Your task to perform on an android device: Search for Italian restaurants on Maps Image 0: 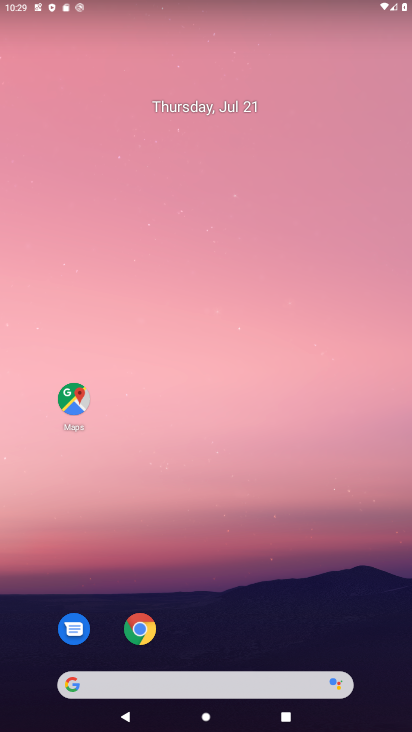
Step 0: click (81, 405)
Your task to perform on an android device: Search for Italian restaurants on Maps Image 1: 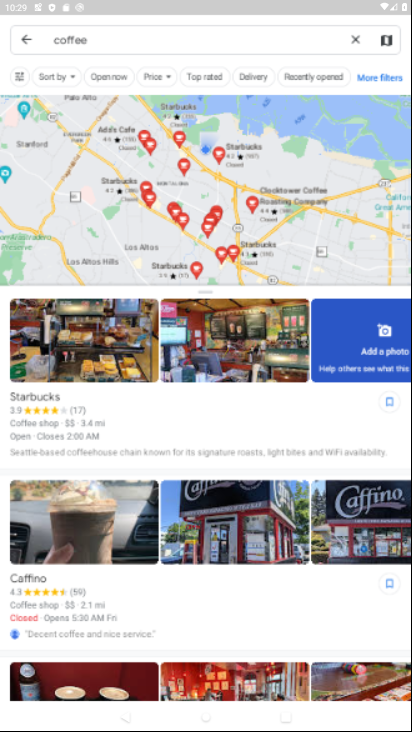
Step 1: click (67, 390)
Your task to perform on an android device: Search for Italian restaurants on Maps Image 2: 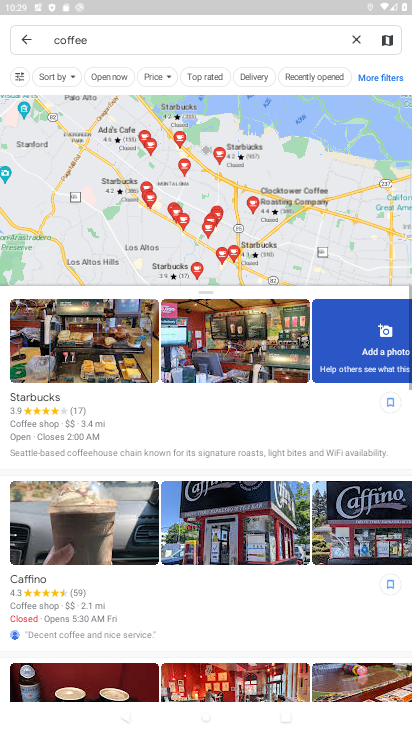
Step 2: click (359, 41)
Your task to perform on an android device: Search for Italian restaurants on Maps Image 3: 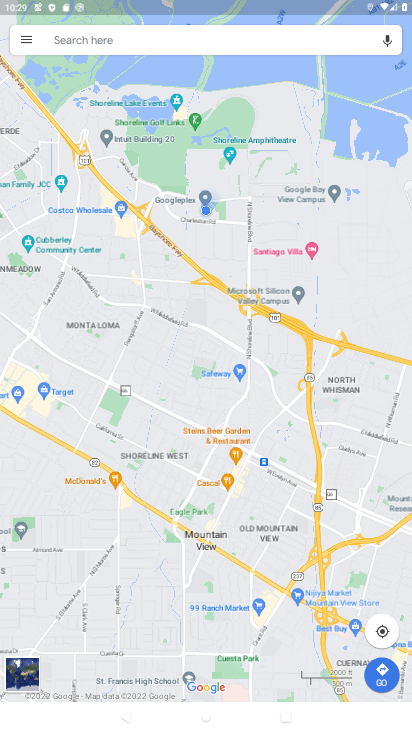
Step 3: click (273, 35)
Your task to perform on an android device: Search for Italian restaurants on Maps Image 4: 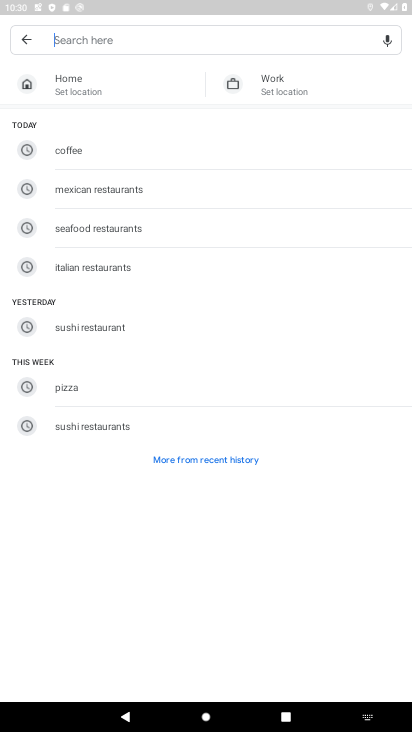
Step 4: type "it"
Your task to perform on an android device: Search for Italian restaurants on Maps Image 5: 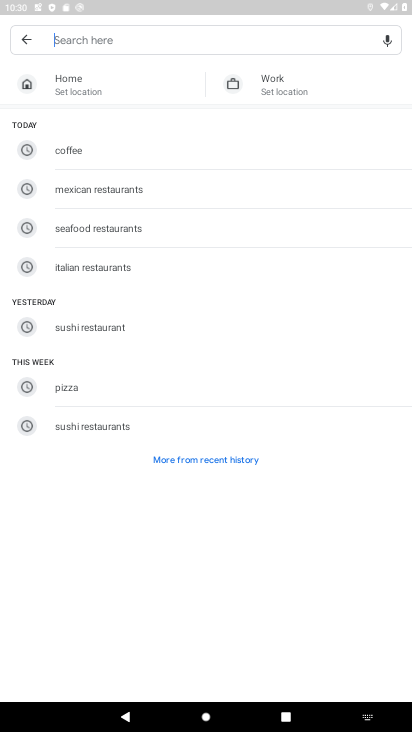
Step 5: click (138, 281)
Your task to perform on an android device: Search for Italian restaurants on Maps Image 6: 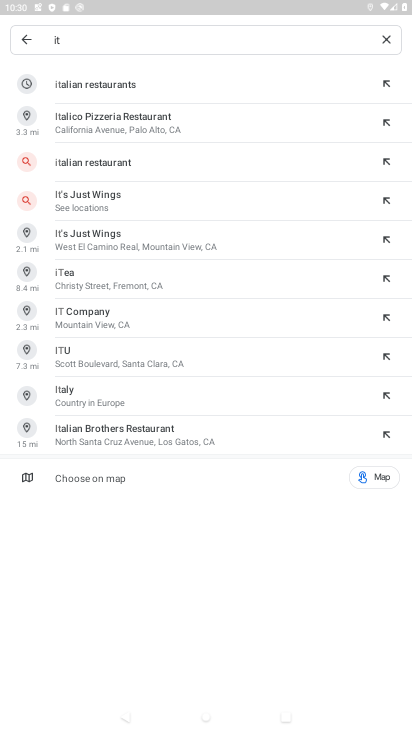
Step 6: click (110, 150)
Your task to perform on an android device: Search for Italian restaurants on Maps Image 7: 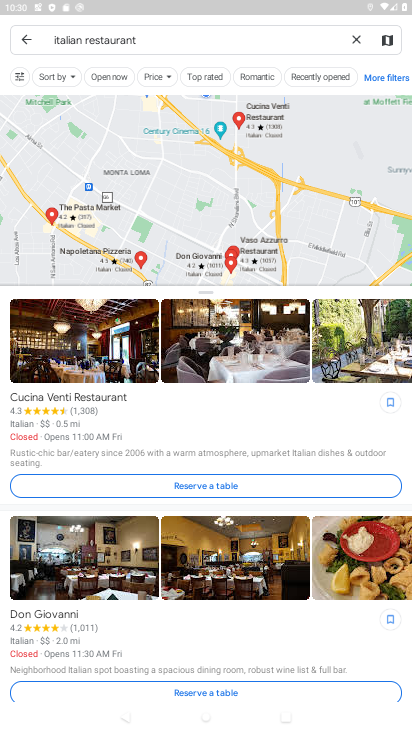
Step 7: click (110, 150)
Your task to perform on an android device: Search for Italian restaurants on Maps Image 8: 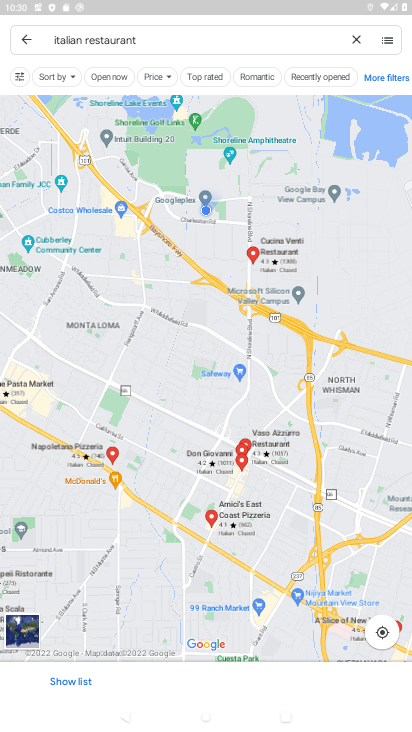
Step 8: task complete